Your task to perform on an android device: uninstall "Truecaller" Image 0: 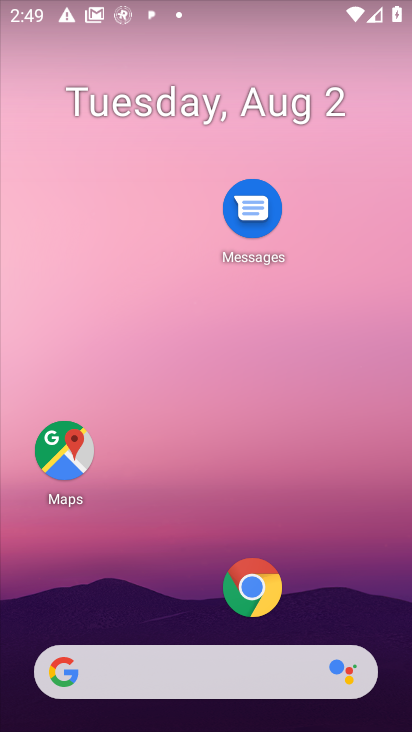
Step 0: drag from (184, 608) to (168, 112)
Your task to perform on an android device: uninstall "Truecaller" Image 1: 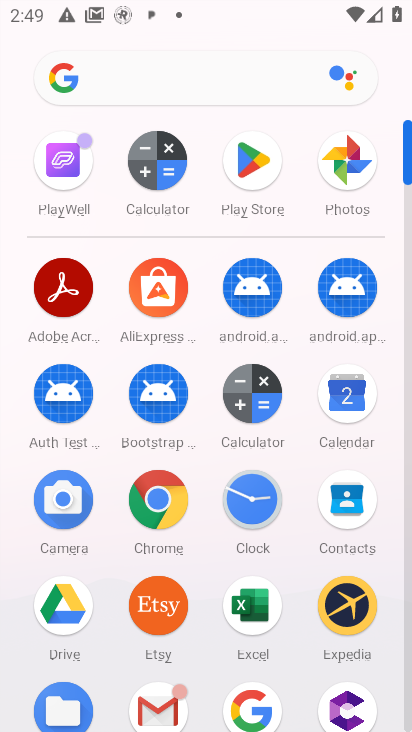
Step 1: click (248, 143)
Your task to perform on an android device: uninstall "Truecaller" Image 2: 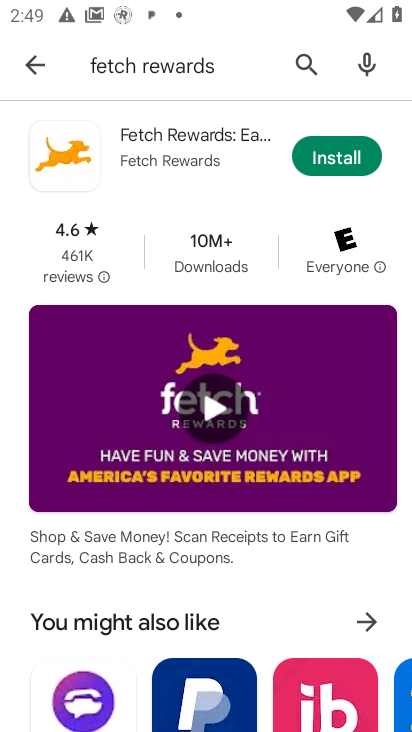
Step 2: click (300, 70)
Your task to perform on an android device: uninstall "Truecaller" Image 3: 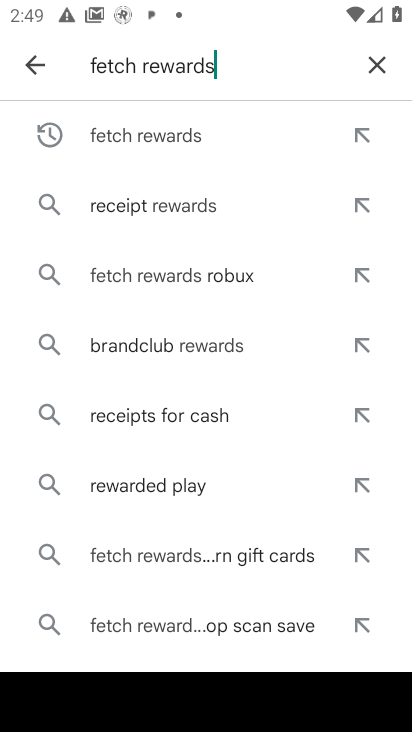
Step 3: click (374, 59)
Your task to perform on an android device: uninstall "Truecaller" Image 4: 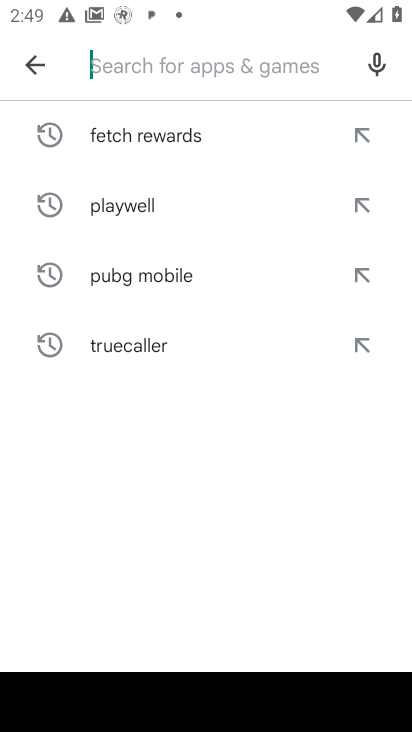
Step 4: type "Truecaller""
Your task to perform on an android device: uninstall "Truecaller" Image 5: 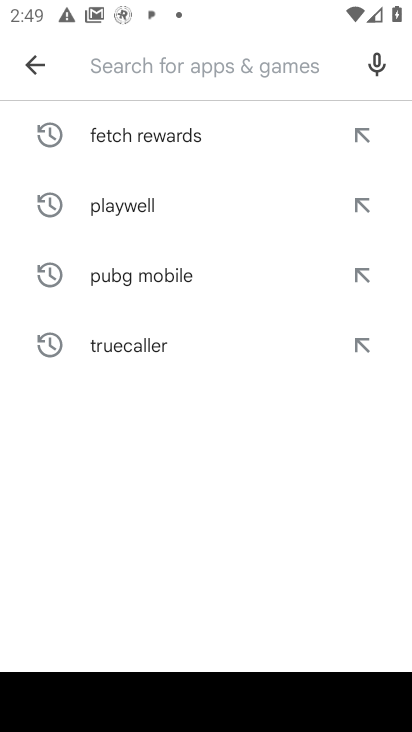
Step 5: type ""
Your task to perform on an android device: uninstall "Truecaller" Image 6: 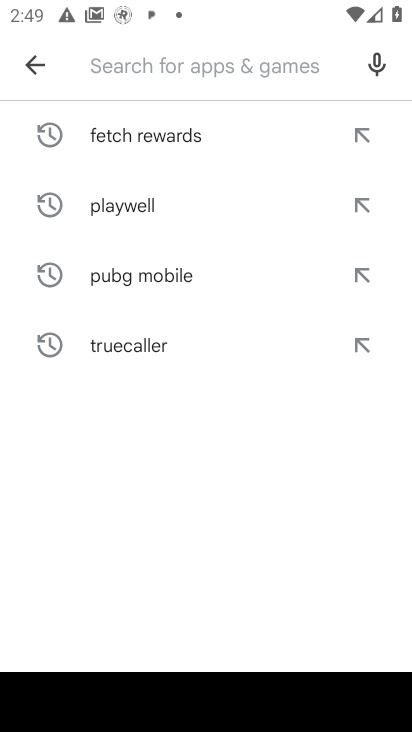
Step 6: click (183, 137)
Your task to perform on an android device: uninstall "Truecaller" Image 7: 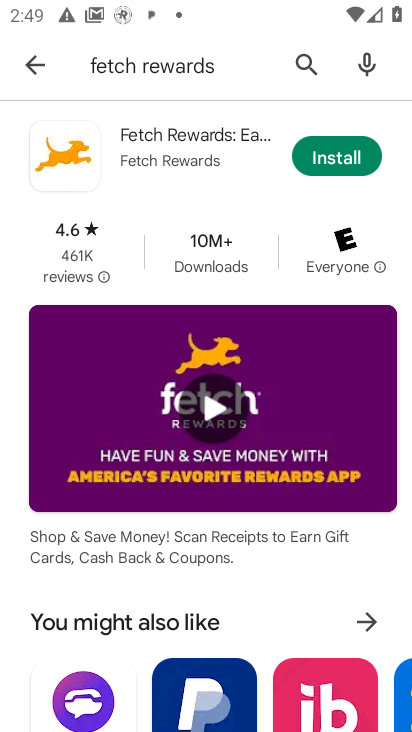
Step 7: click (305, 59)
Your task to perform on an android device: uninstall "Truecaller" Image 8: 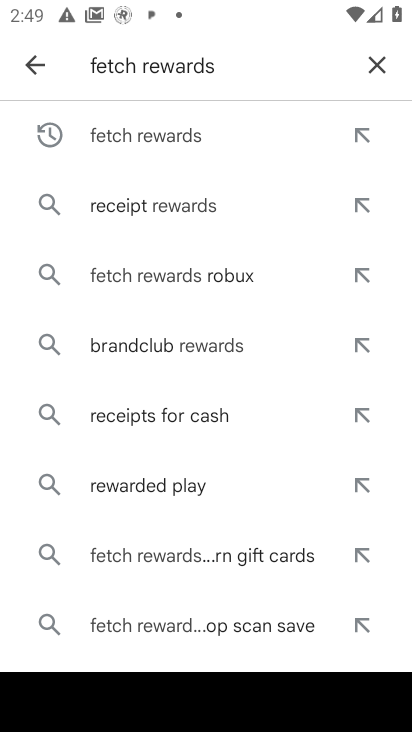
Step 8: click (367, 55)
Your task to perform on an android device: uninstall "Truecaller" Image 9: 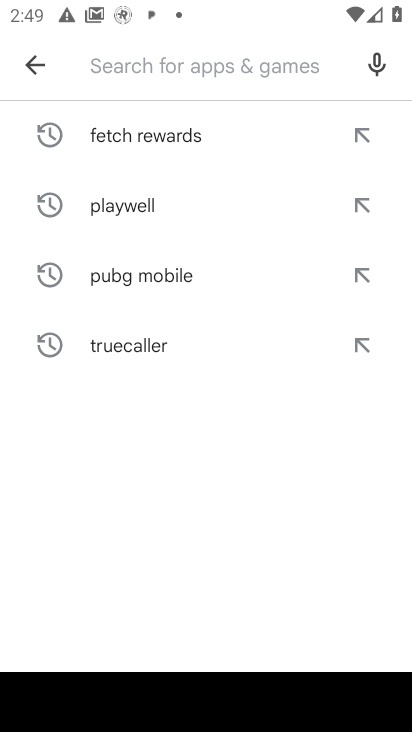
Step 9: type "Truecaller"
Your task to perform on an android device: uninstall "Truecaller" Image 10: 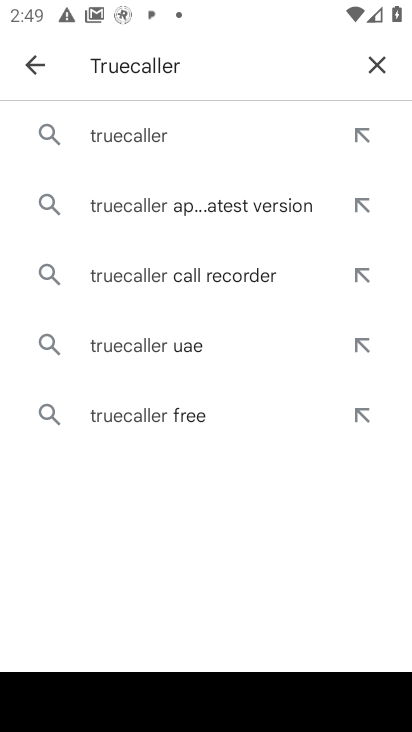
Step 10: click (228, 129)
Your task to perform on an android device: uninstall "Truecaller" Image 11: 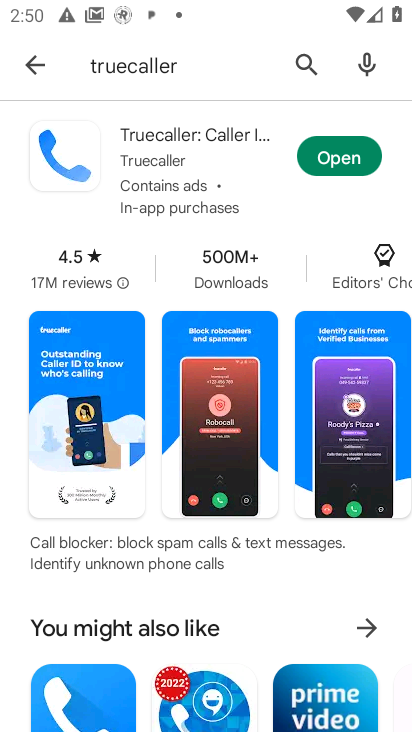
Step 11: click (197, 133)
Your task to perform on an android device: uninstall "Truecaller" Image 12: 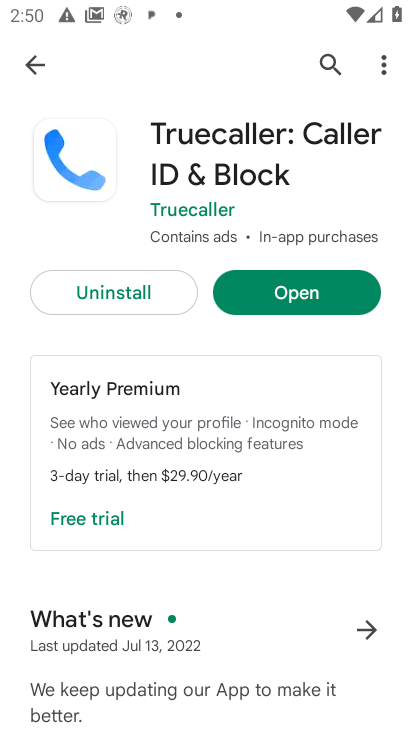
Step 12: click (128, 287)
Your task to perform on an android device: uninstall "Truecaller" Image 13: 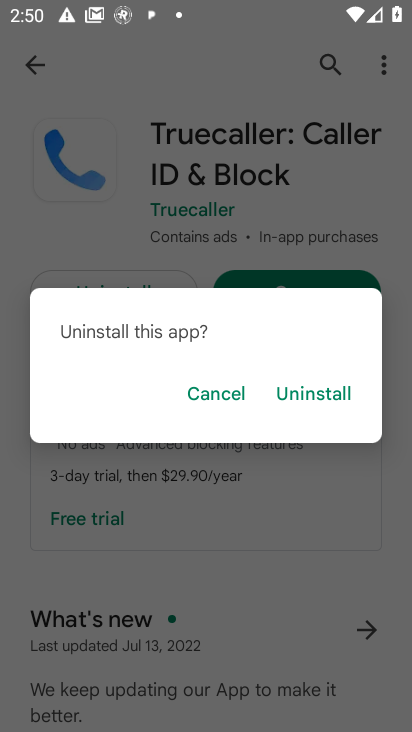
Step 13: click (298, 381)
Your task to perform on an android device: uninstall "Truecaller" Image 14: 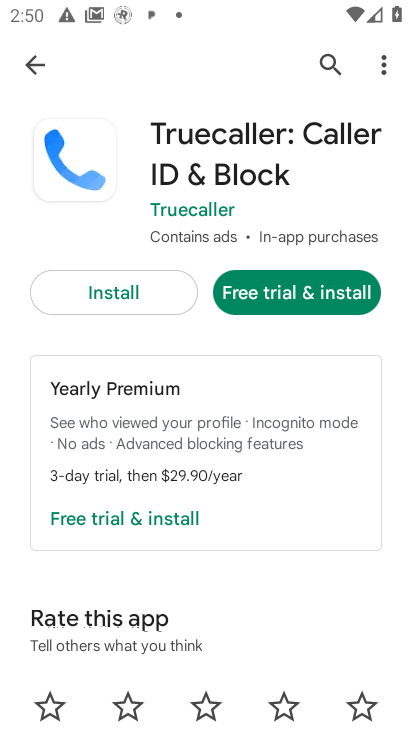
Step 14: task complete